Your task to perform on an android device: empty trash in google photos Image 0: 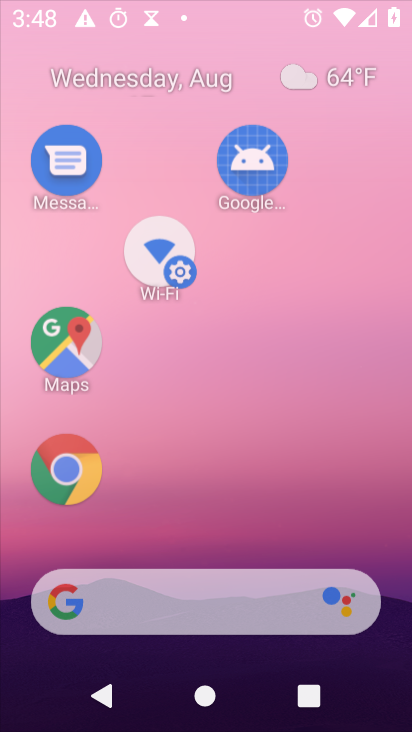
Step 0: press home button
Your task to perform on an android device: empty trash in google photos Image 1: 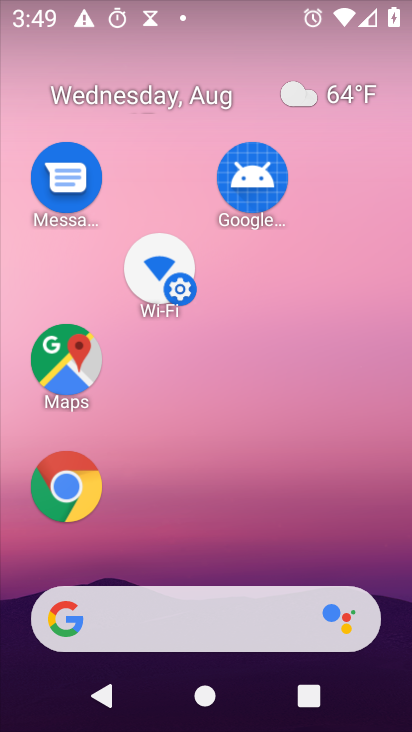
Step 1: drag from (317, 551) to (352, 2)
Your task to perform on an android device: empty trash in google photos Image 2: 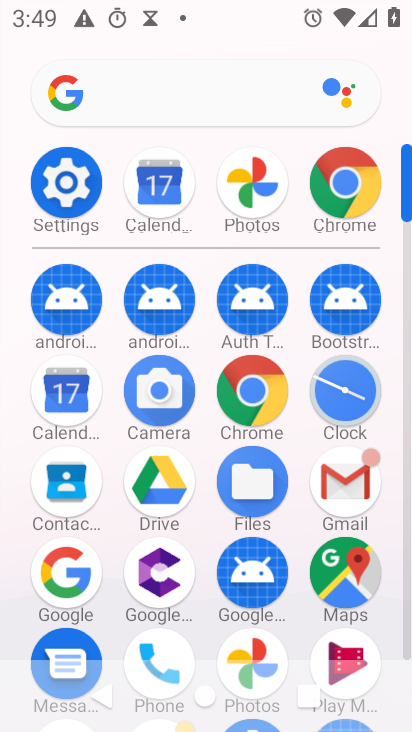
Step 2: click (261, 648)
Your task to perform on an android device: empty trash in google photos Image 3: 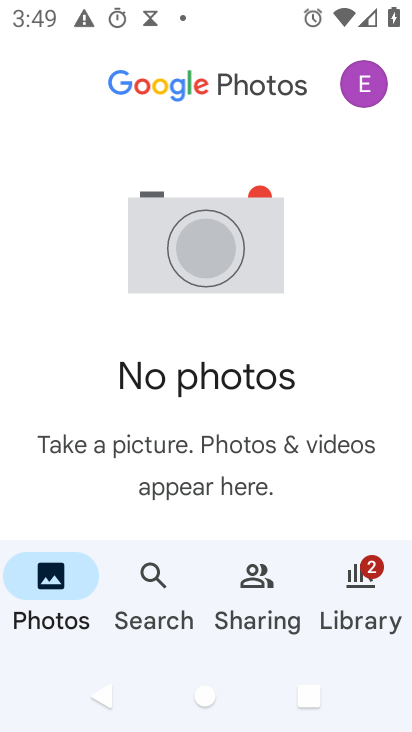
Step 3: click (348, 590)
Your task to perform on an android device: empty trash in google photos Image 4: 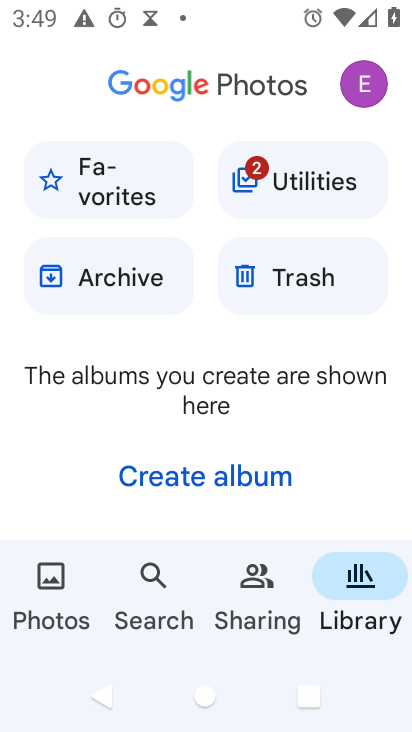
Step 4: click (259, 268)
Your task to perform on an android device: empty trash in google photos Image 5: 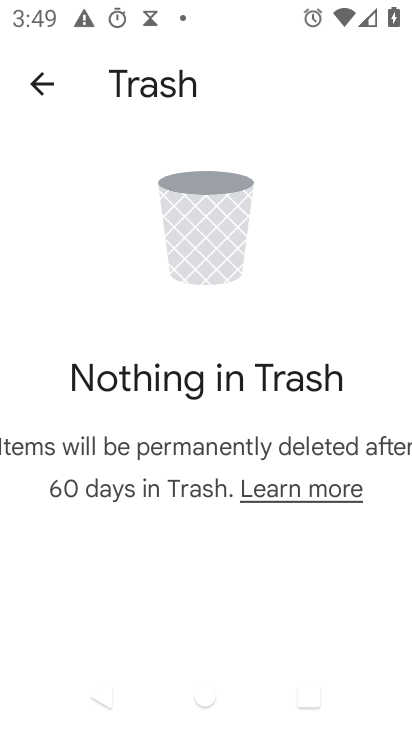
Step 5: task complete